Your task to perform on an android device: turn on improve location accuracy Image 0: 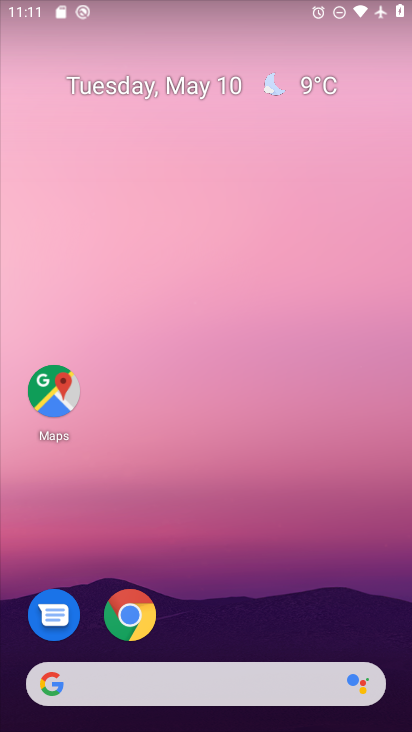
Step 0: drag from (379, 629) to (260, 32)
Your task to perform on an android device: turn on improve location accuracy Image 1: 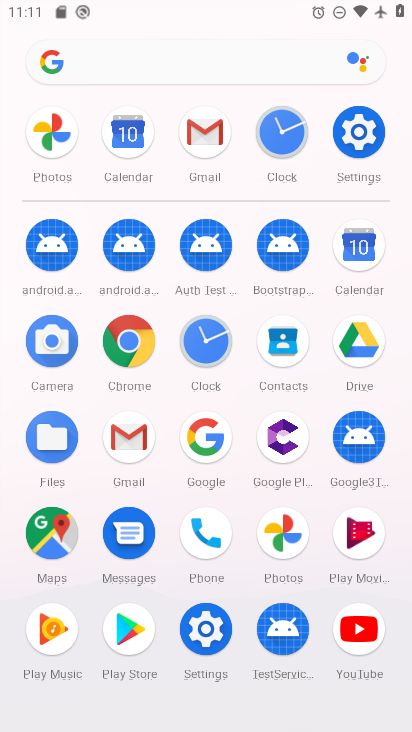
Step 1: click (203, 627)
Your task to perform on an android device: turn on improve location accuracy Image 2: 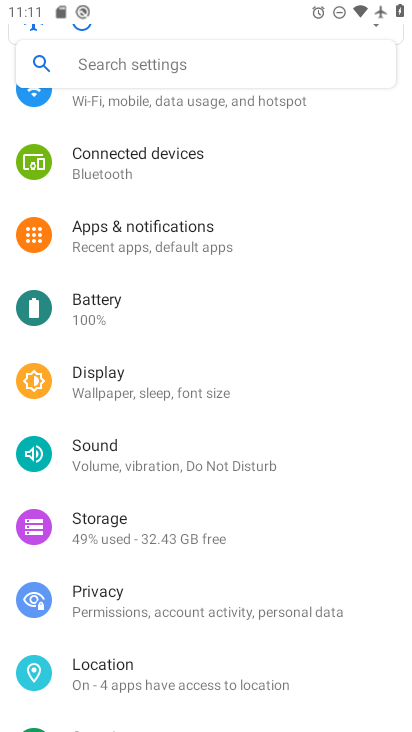
Step 2: click (113, 673)
Your task to perform on an android device: turn on improve location accuracy Image 3: 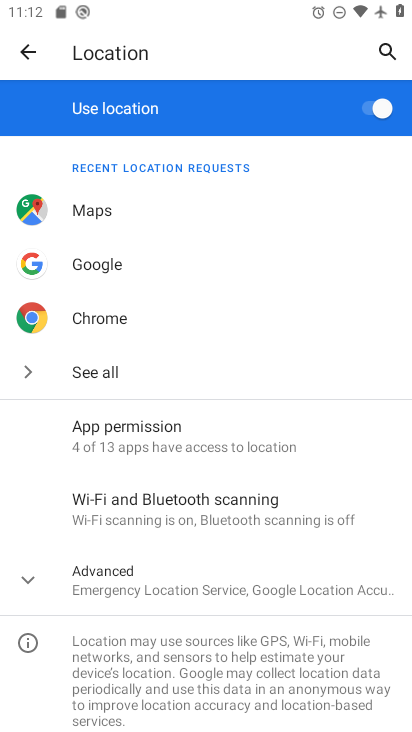
Step 3: click (41, 574)
Your task to perform on an android device: turn on improve location accuracy Image 4: 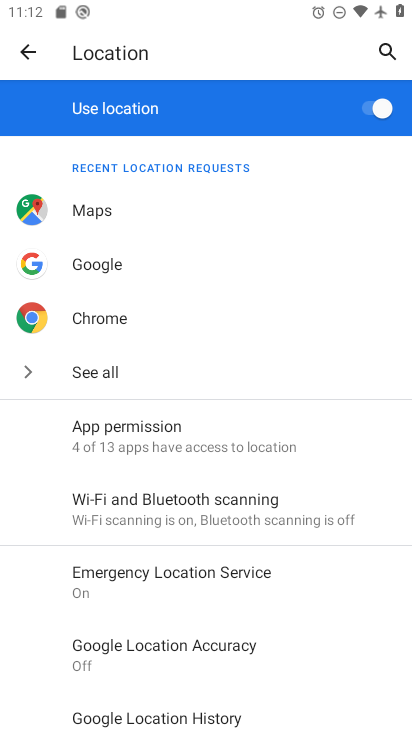
Step 4: click (160, 650)
Your task to perform on an android device: turn on improve location accuracy Image 5: 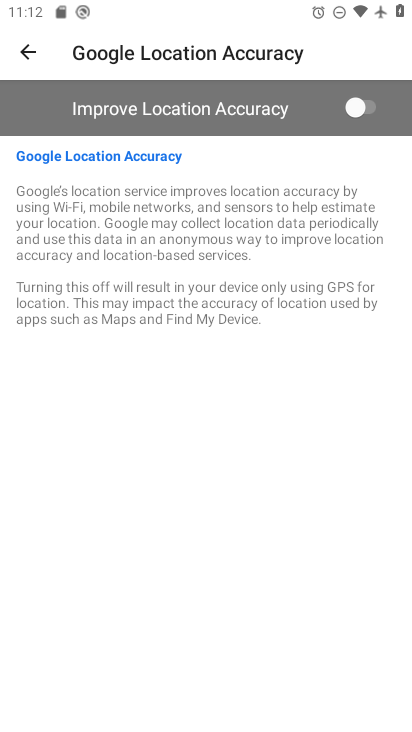
Step 5: click (368, 100)
Your task to perform on an android device: turn on improve location accuracy Image 6: 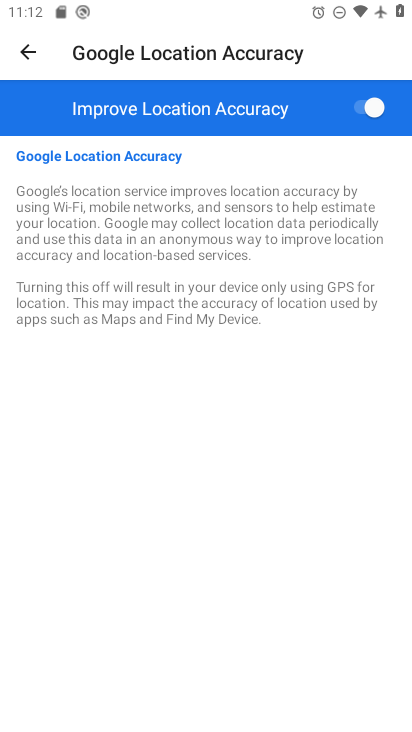
Step 6: task complete